Your task to perform on an android device: What time is it in San Francisco? Image 0: 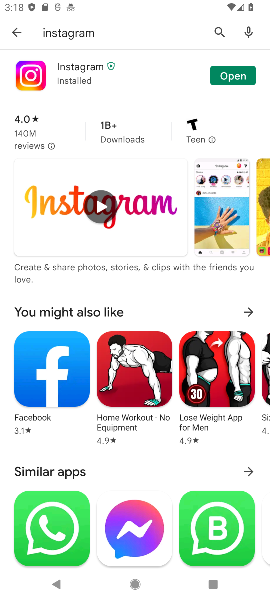
Step 0: press home button
Your task to perform on an android device: What time is it in San Francisco? Image 1: 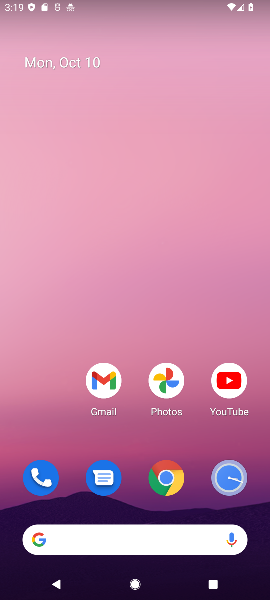
Step 1: click (152, 472)
Your task to perform on an android device: What time is it in San Francisco? Image 2: 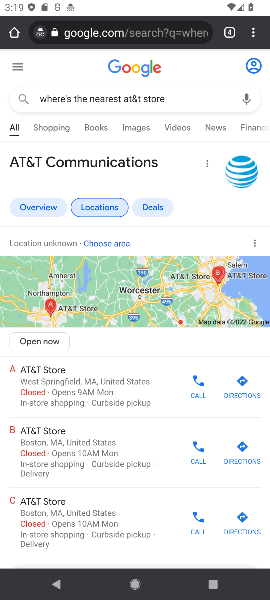
Step 2: click (176, 98)
Your task to perform on an android device: What time is it in San Francisco? Image 3: 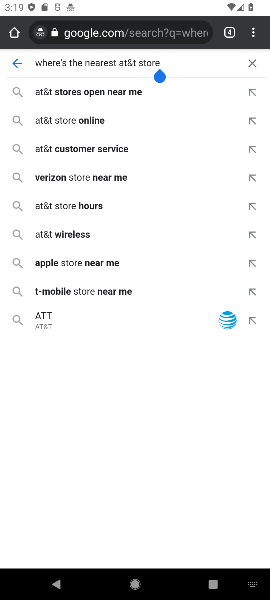
Step 3: click (251, 60)
Your task to perform on an android device: What time is it in San Francisco? Image 4: 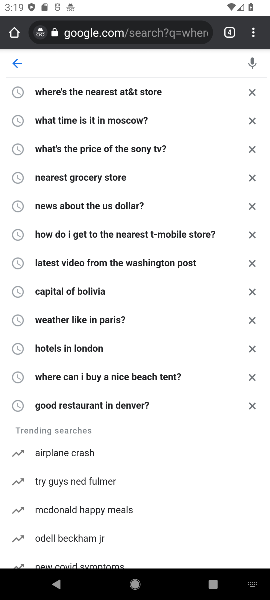
Step 4: type "What time is it in San Francisco?"
Your task to perform on an android device: What time is it in San Francisco? Image 5: 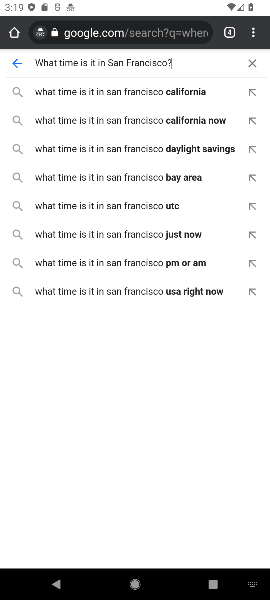
Step 5: click (146, 92)
Your task to perform on an android device: What time is it in San Francisco? Image 6: 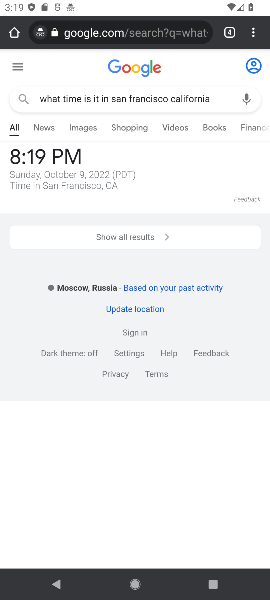
Step 6: task complete